Your task to perform on an android device: What's the weather today? Image 0: 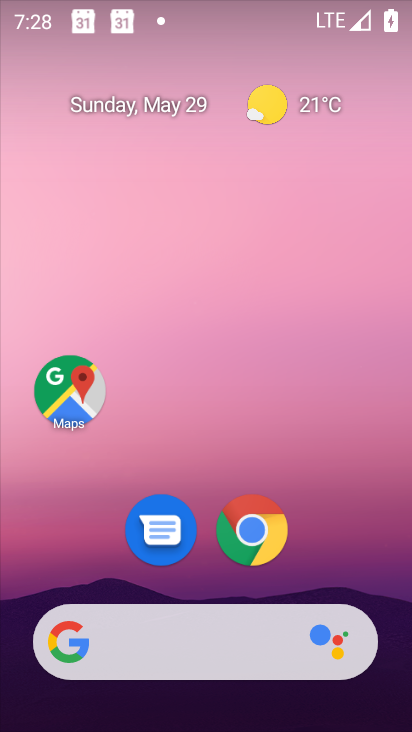
Step 0: drag from (242, 651) to (190, 164)
Your task to perform on an android device: What's the weather today? Image 1: 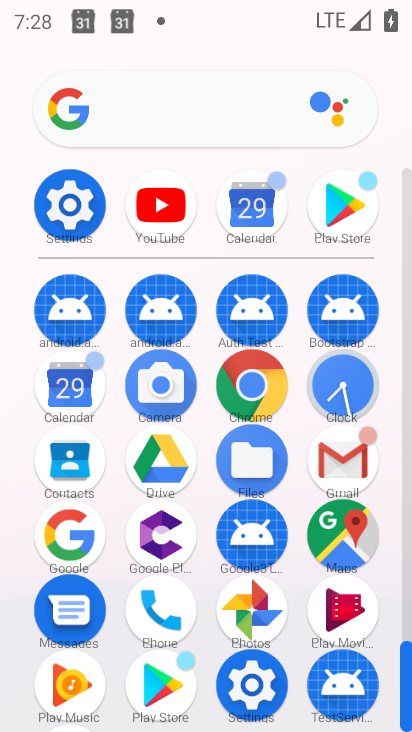
Step 1: click (137, 114)
Your task to perform on an android device: What's the weather today? Image 2: 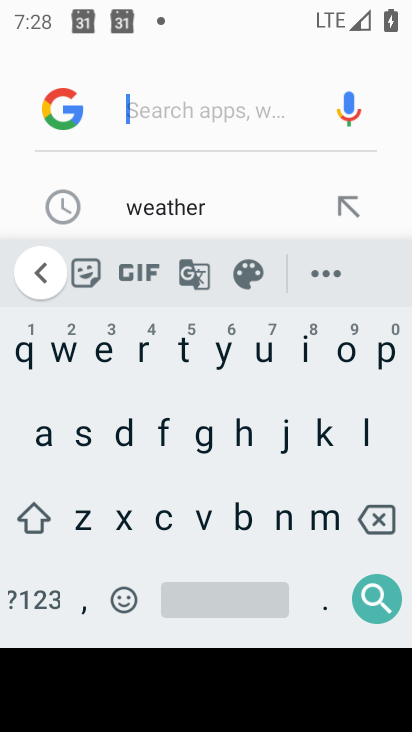
Step 2: click (198, 202)
Your task to perform on an android device: What's the weather today? Image 3: 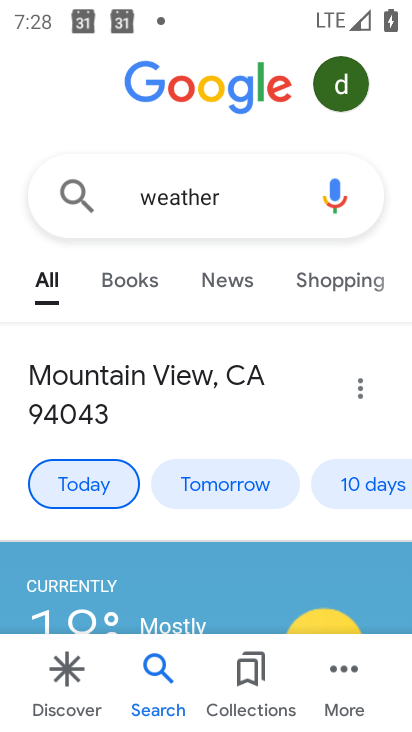
Step 3: task complete